Your task to perform on an android device: move a message to another label in the gmail app Image 0: 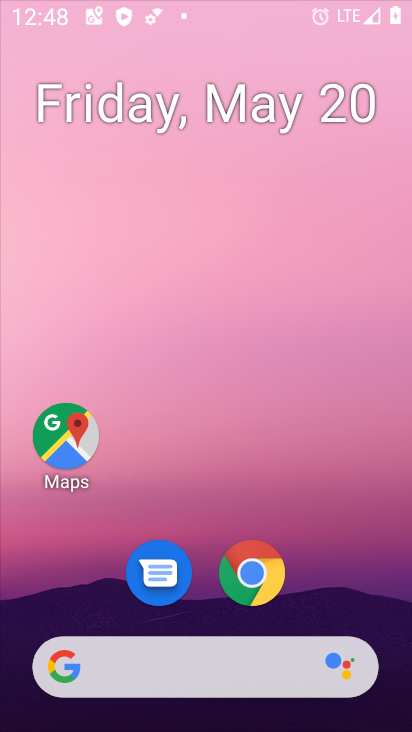
Step 0: drag from (317, 463) to (270, 99)
Your task to perform on an android device: move a message to another label in the gmail app Image 1: 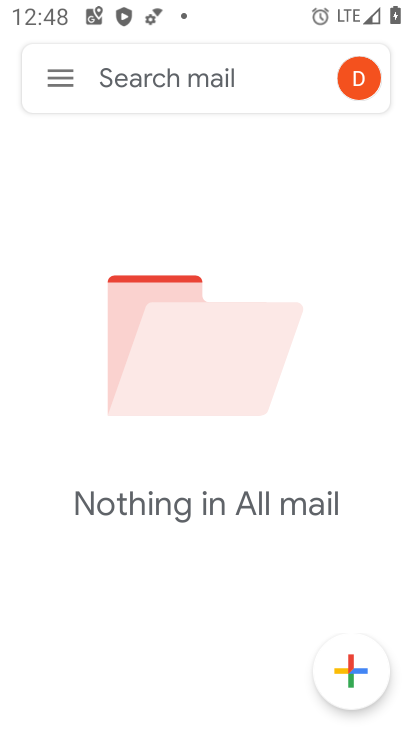
Step 1: press home button
Your task to perform on an android device: move a message to another label in the gmail app Image 2: 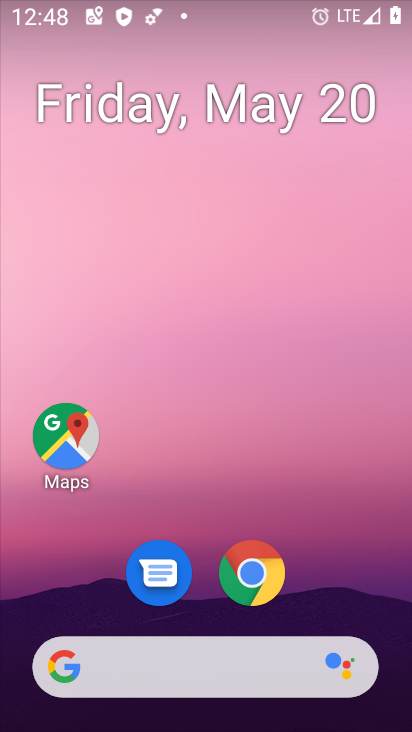
Step 2: drag from (212, 509) to (217, 66)
Your task to perform on an android device: move a message to another label in the gmail app Image 3: 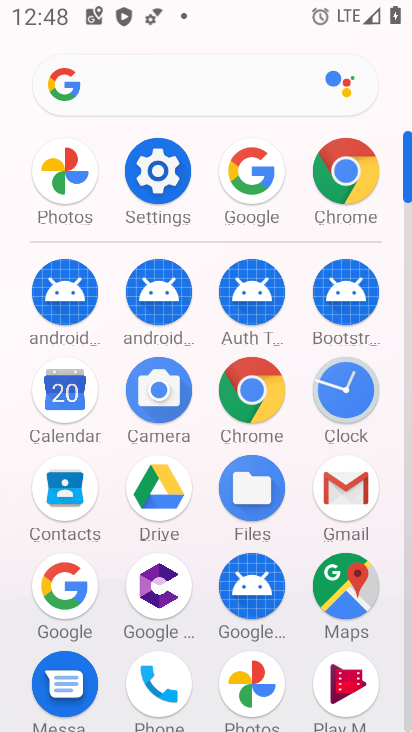
Step 3: click (348, 485)
Your task to perform on an android device: move a message to another label in the gmail app Image 4: 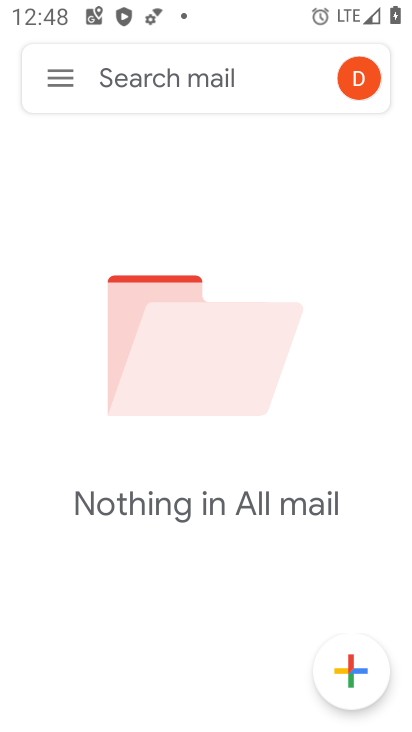
Step 4: click (60, 89)
Your task to perform on an android device: move a message to another label in the gmail app Image 5: 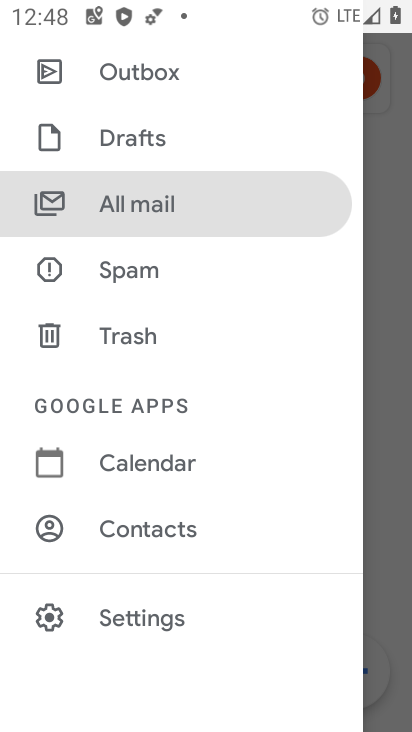
Step 5: click (373, 284)
Your task to perform on an android device: move a message to another label in the gmail app Image 6: 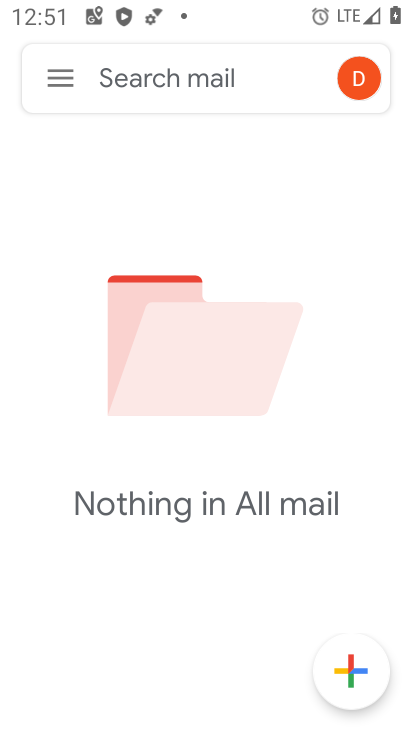
Step 6: task complete